Your task to perform on an android device: Go to eBay Image 0: 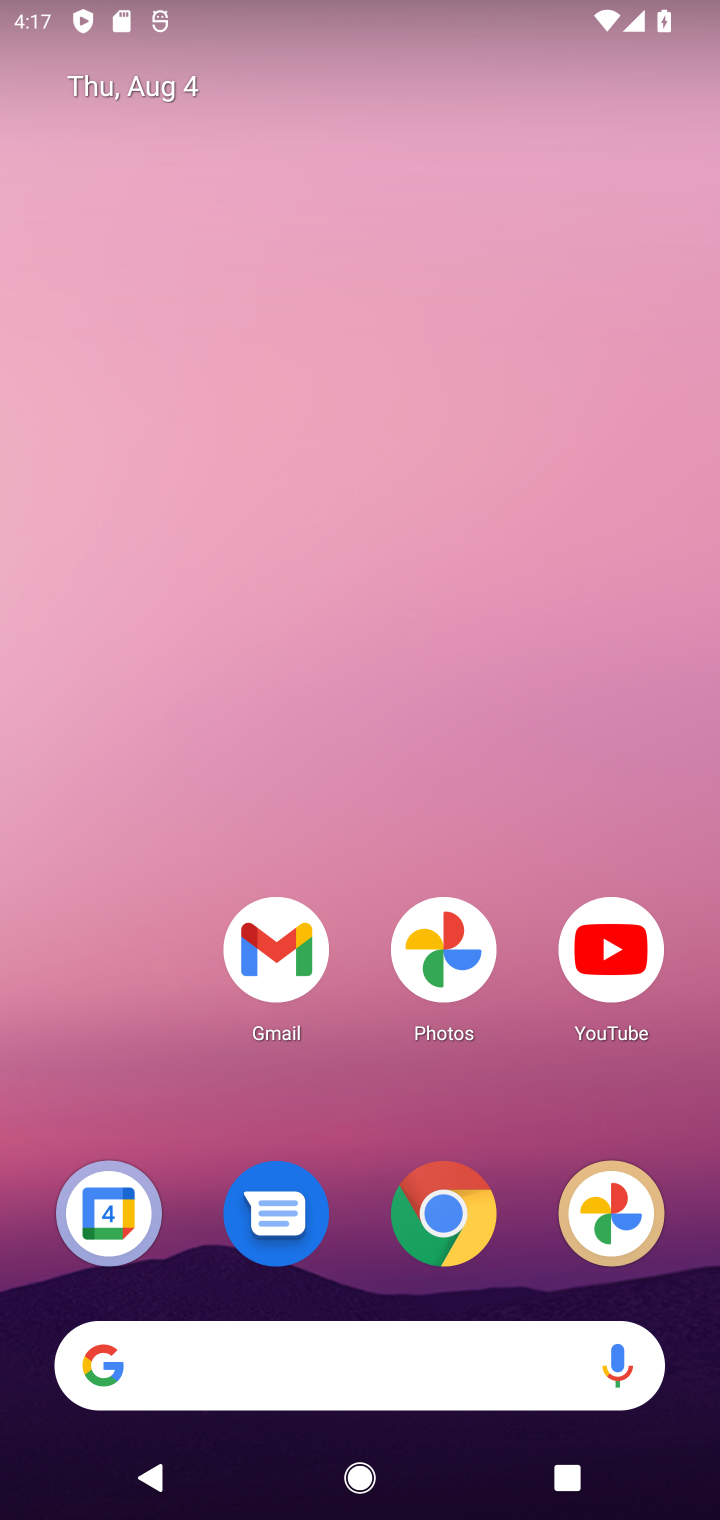
Step 0: press home button
Your task to perform on an android device: Go to eBay Image 1: 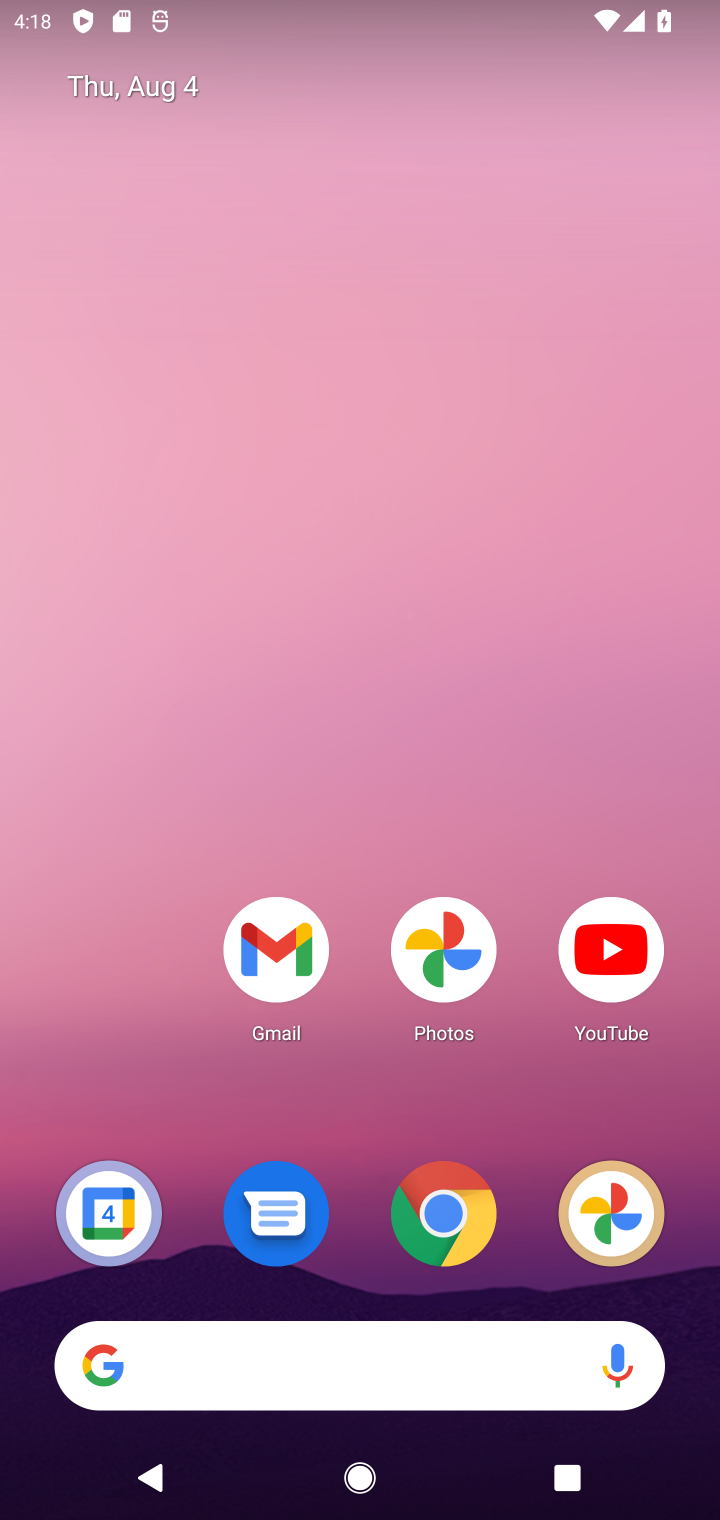
Step 1: drag from (164, 1062) to (156, 192)
Your task to perform on an android device: Go to eBay Image 2: 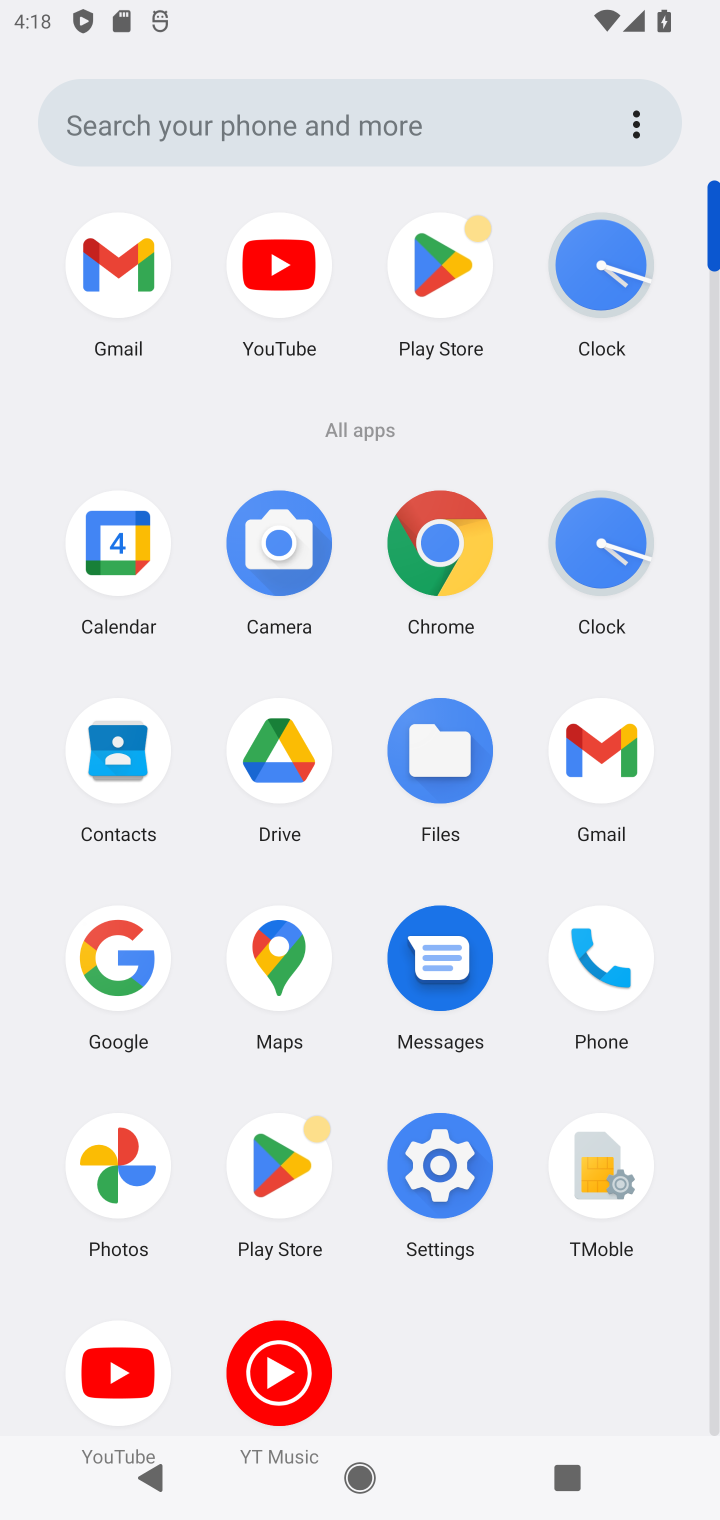
Step 2: click (450, 556)
Your task to perform on an android device: Go to eBay Image 3: 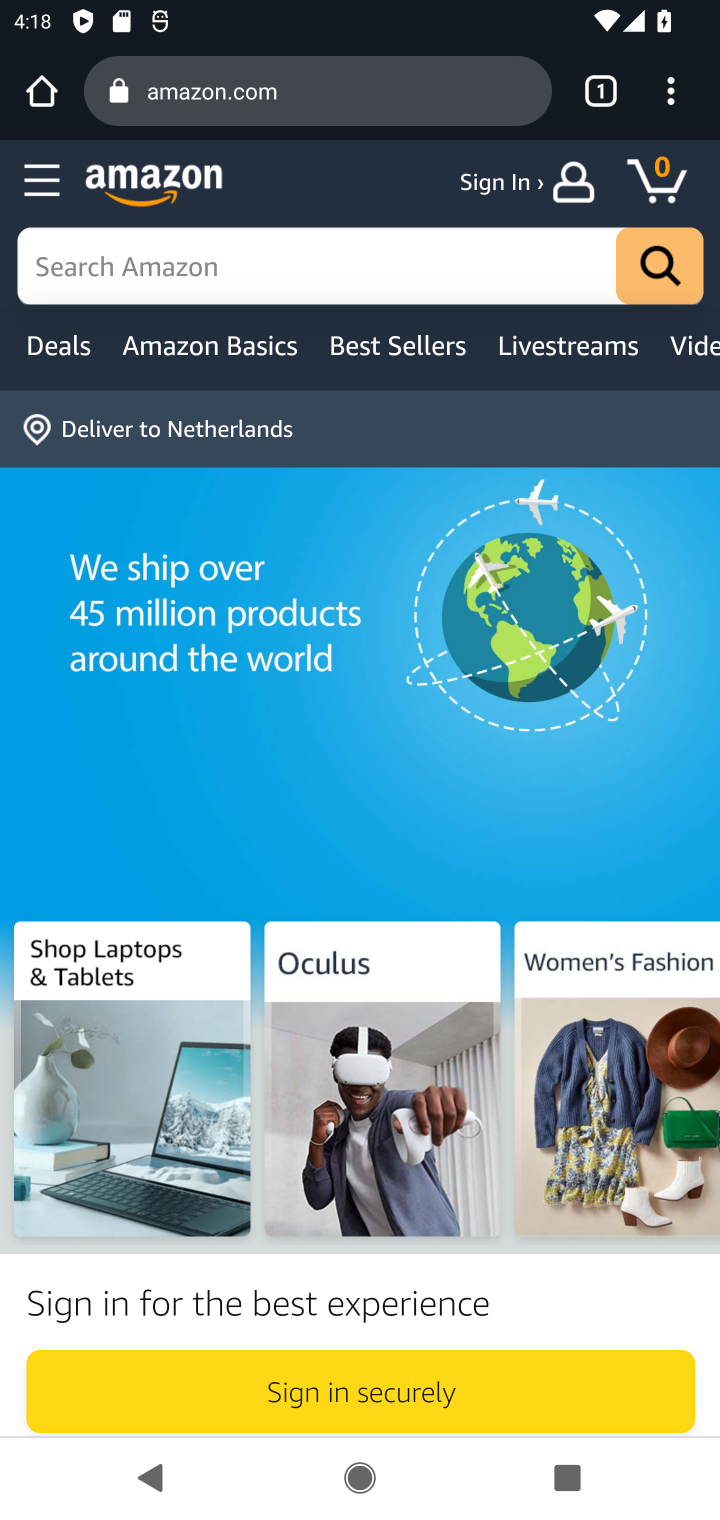
Step 3: click (374, 89)
Your task to perform on an android device: Go to eBay Image 4: 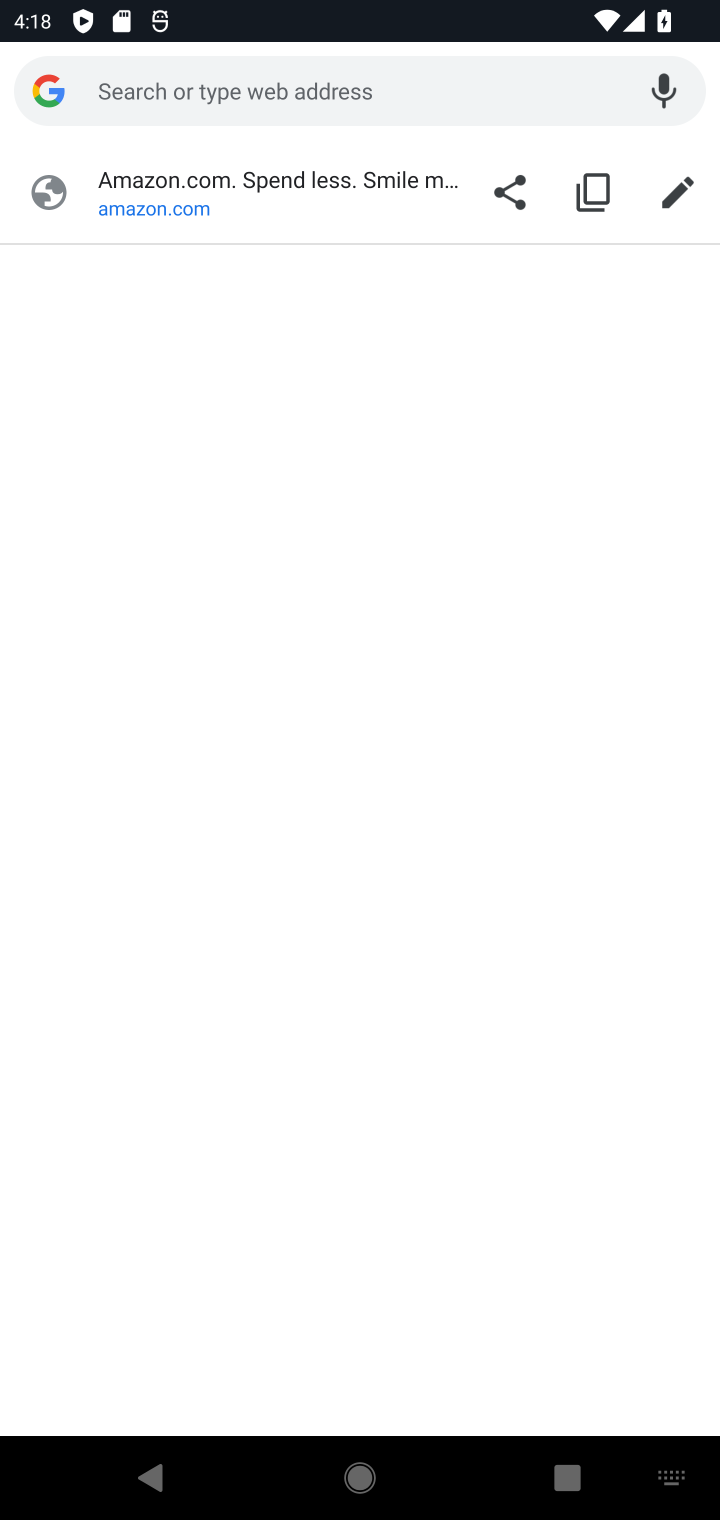
Step 4: type "ebay"
Your task to perform on an android device: Go to eBay Image 5: 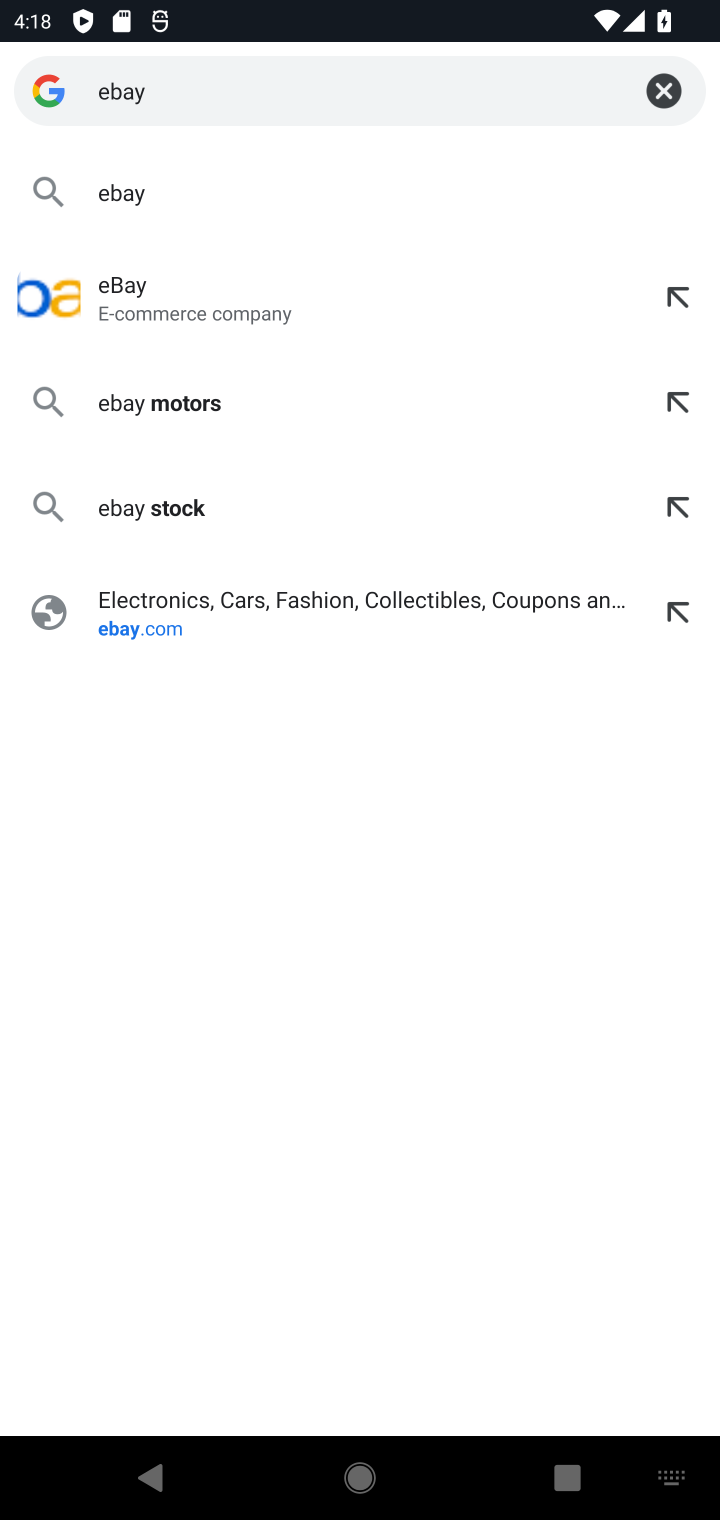
Step 5: click (264, 292)
Your task to perform on an android device: Go to eBay Image 6: 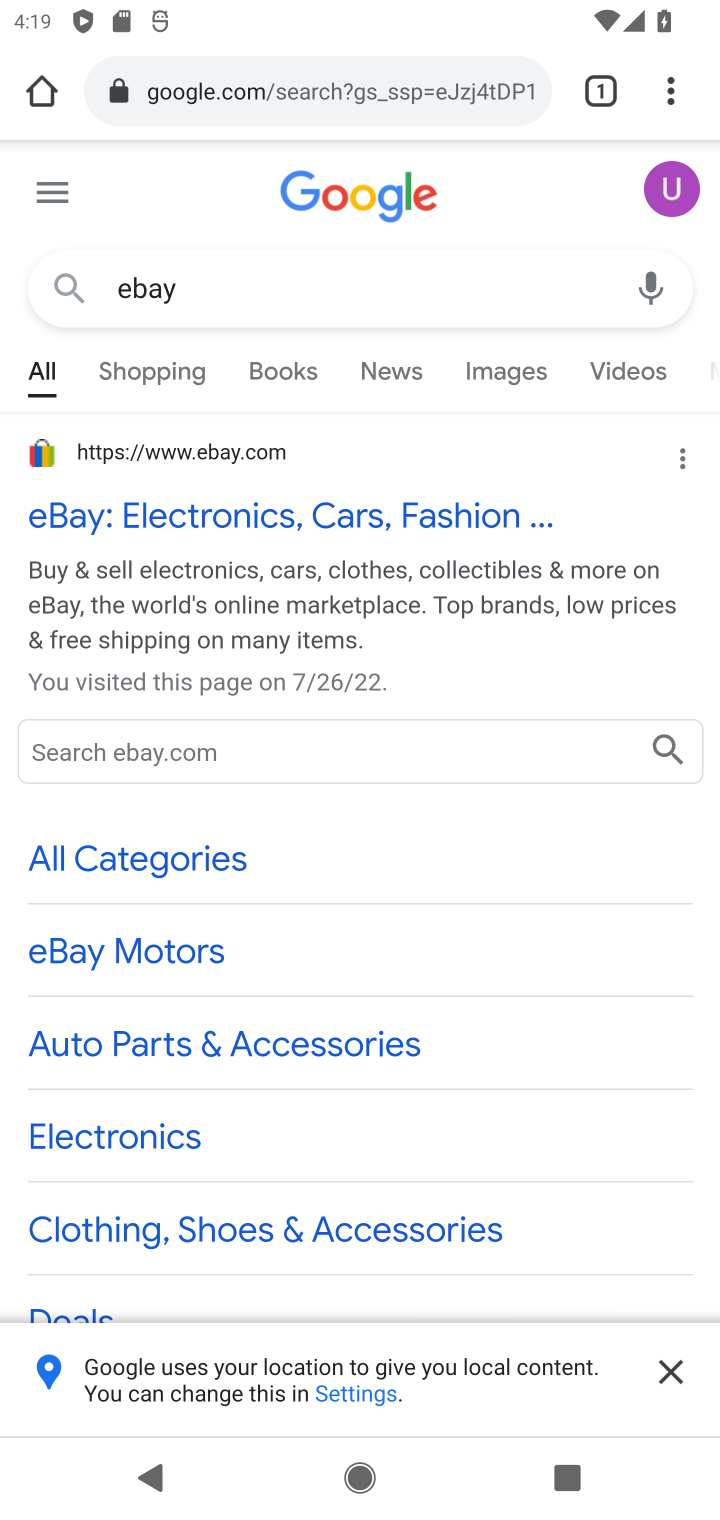
Step 6: task complete